Your task to perform on an android device: open app "Reddit" Image 0: 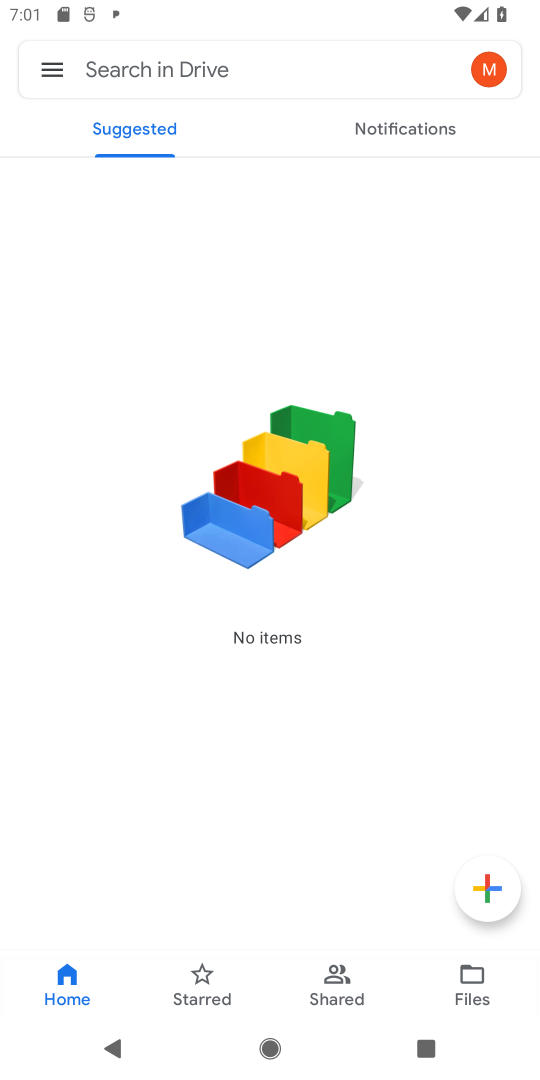
Step 0: press home button
Your task to perform on an android device: open app "Reddit" Image 1: 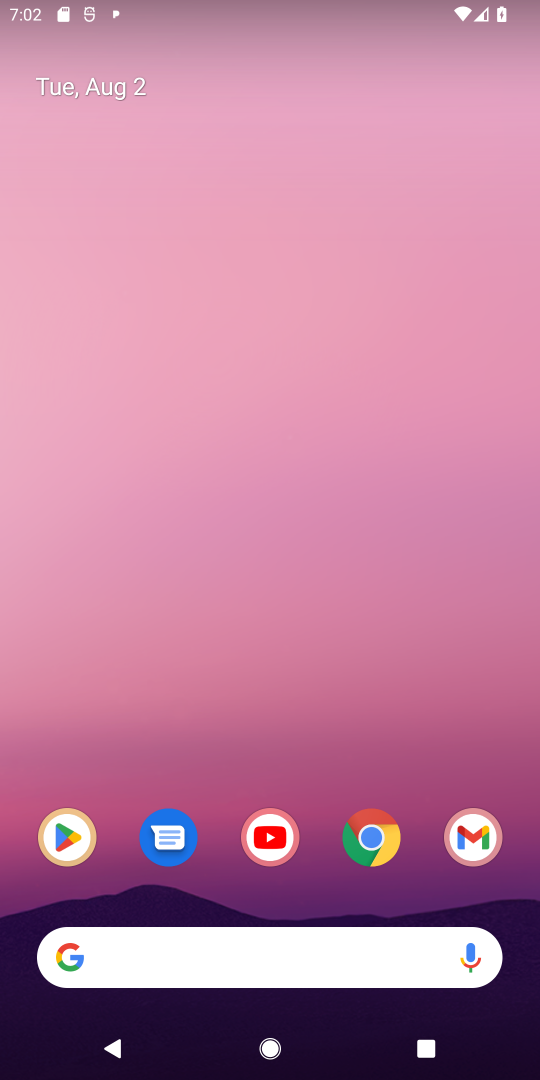
Step 1: click (55, 850)
Your task to perform on an android device: open app "Reddit" Image 2: 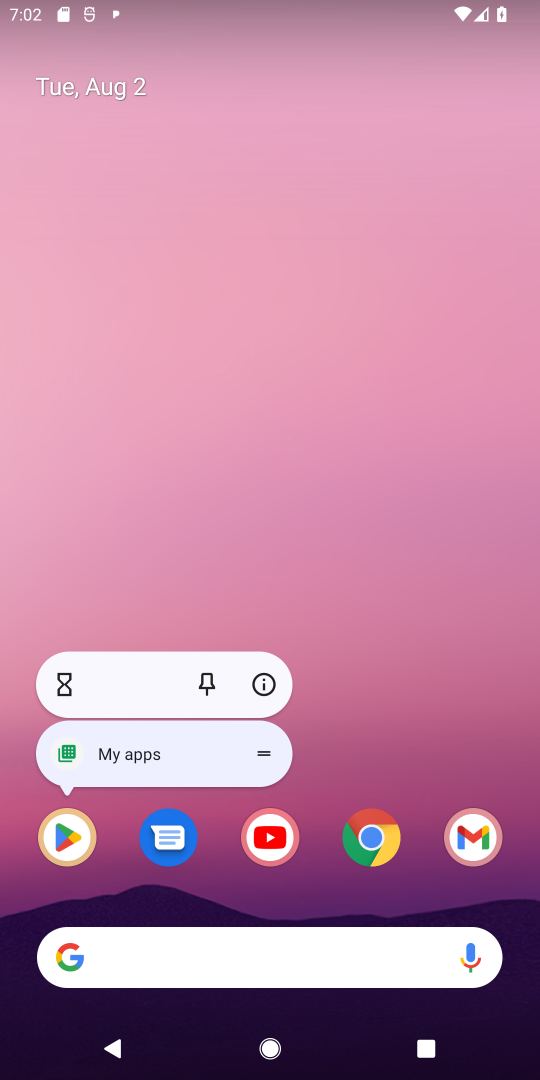
Step 2: click (55, 850)
Your task to perform on an android device: open app "Reddit" Image 3: 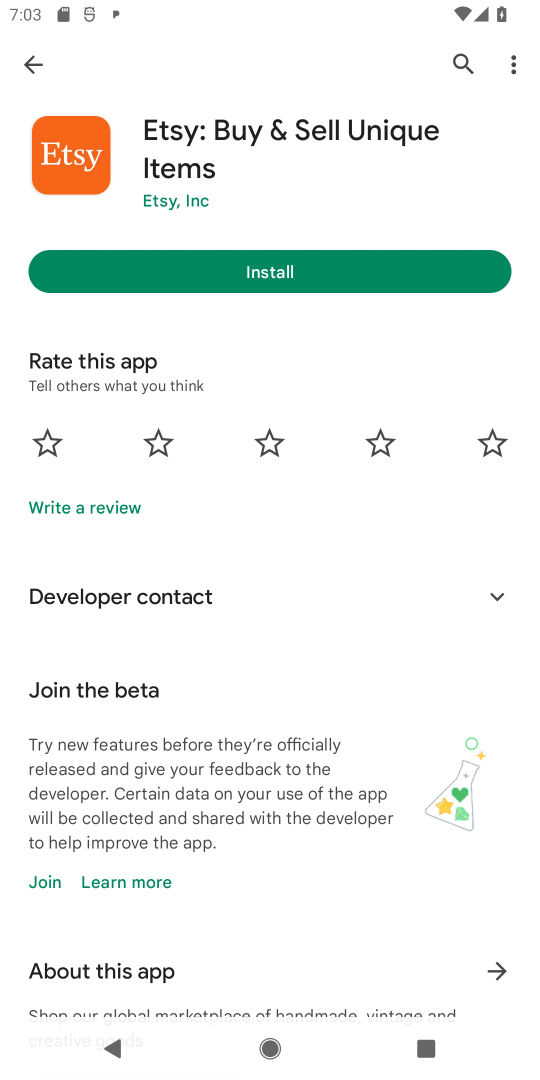
Step 3: click (452, 59)
Your task to perform on an android device: open app "Reddit" Image 4: 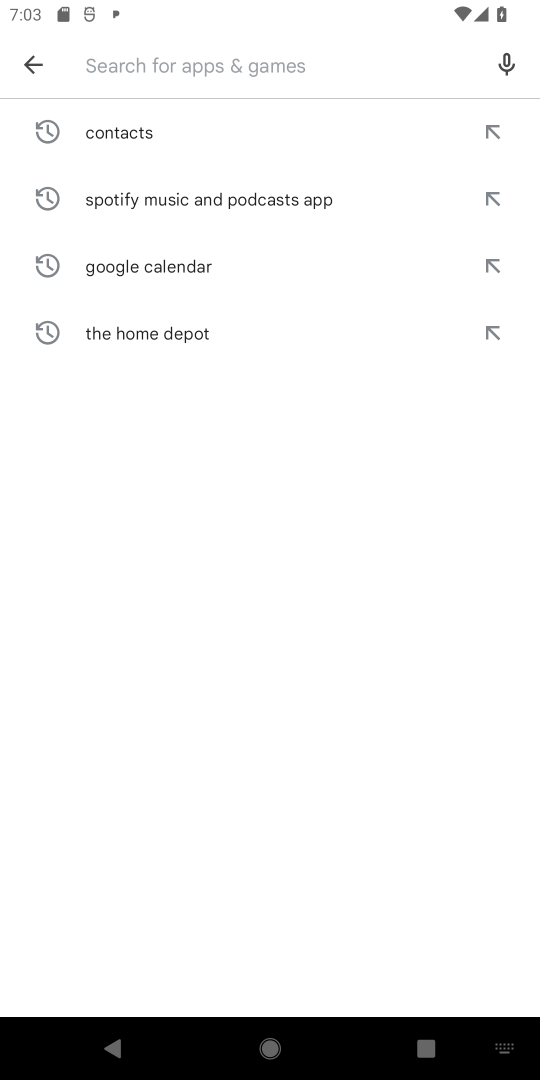
Step 4: type "Reddit"
Your task to perform on an android device: open app "Reddit" Image 5: 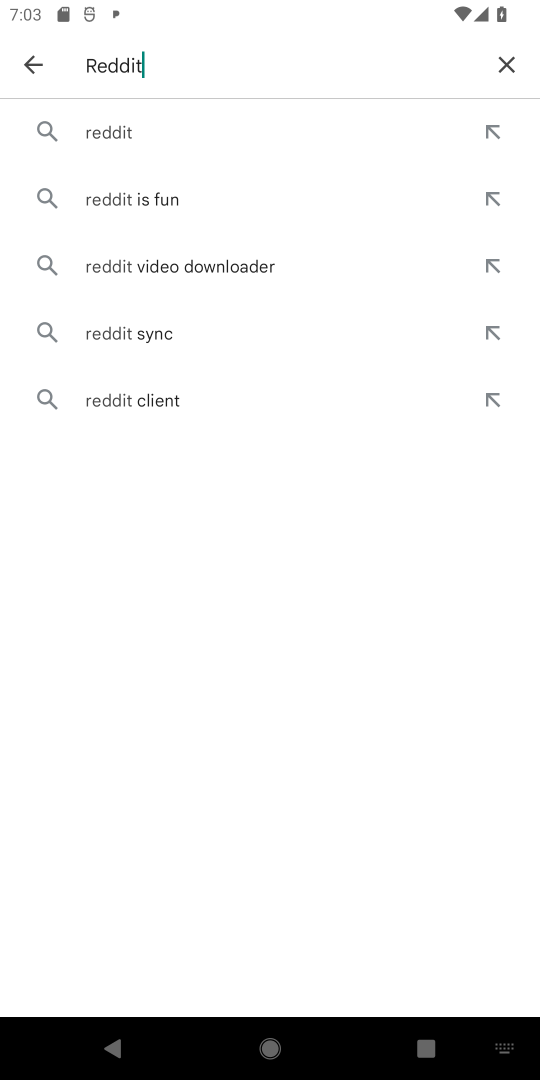
Step 5: click (102, 126)
Your task to perform on an android device: open app "Reddit" Image 6: 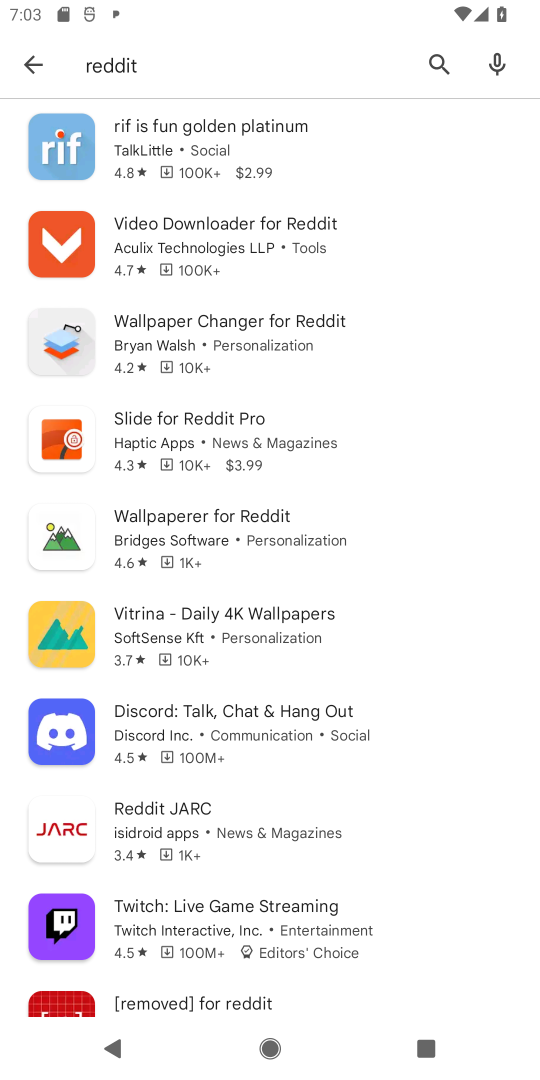
Step 6: task complete